Your task to perform on an android device: Show me popular games on the Play Store Image 0: 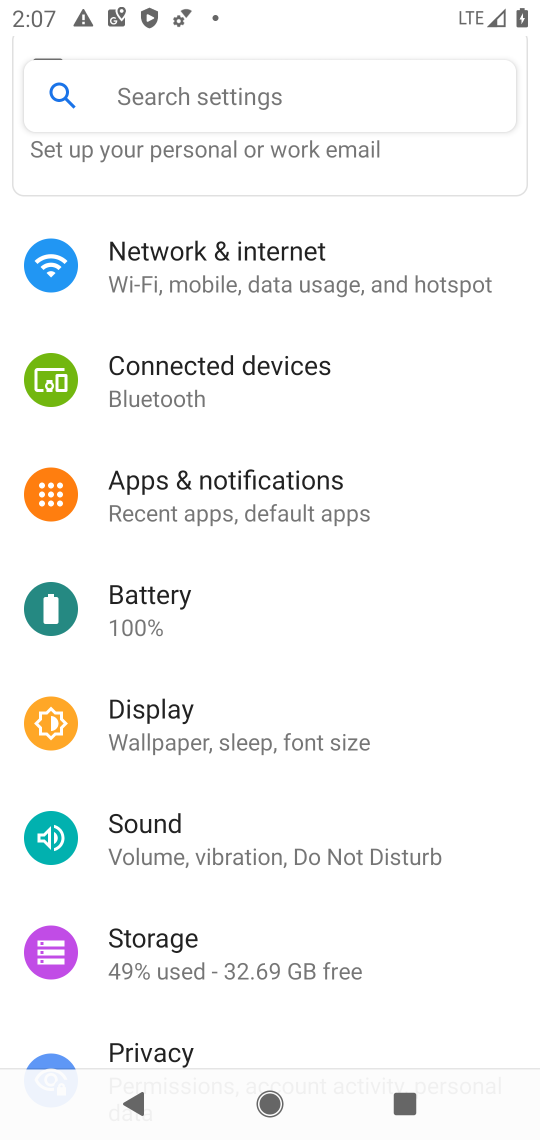
Step 0: press home button
Your task to perform on an android device: Show me popular games on the Play Store Image 1: 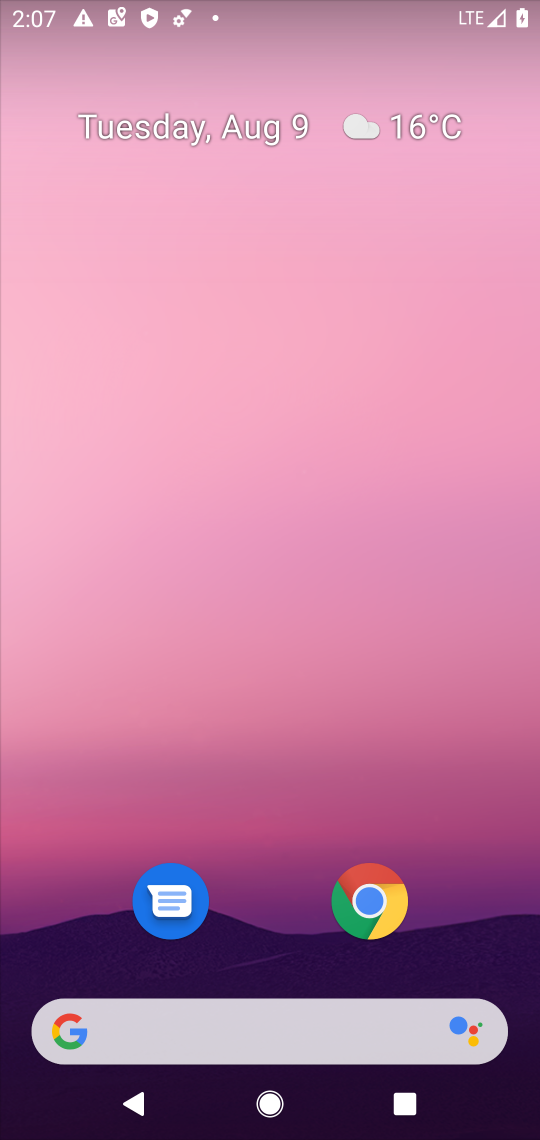
Step 1: drag from (519, 992) to (456, 204)
Your task to perform on an android device: Show me popular games on the Play Store Image 2: 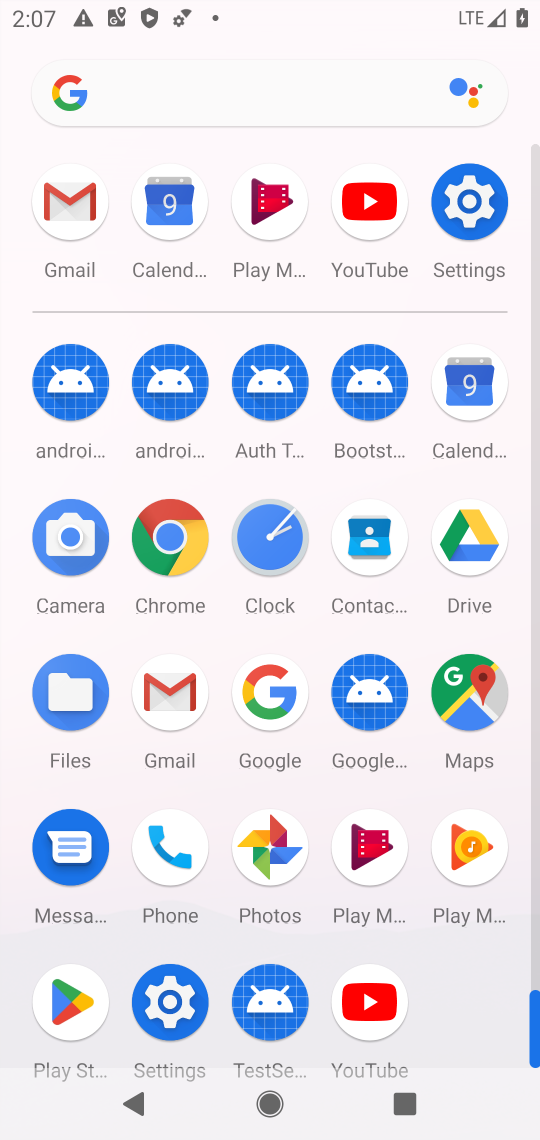
Step 2: click (75, 1004)
Your task to perform on an android device: Show me popular games on the Play Store Image 3: 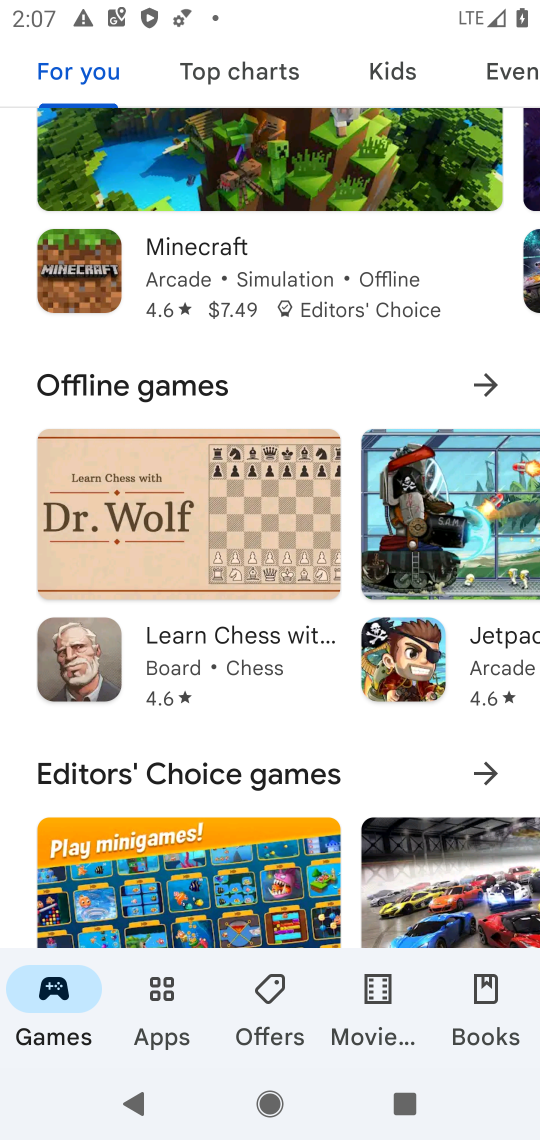
Step 3: task complete